Your task to perform on an android device: Turn off the flashlight Image 0: 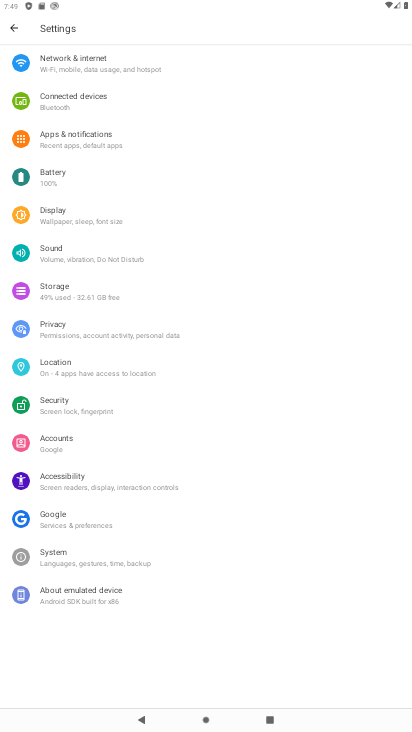
Step 0: press home button
Your task to perform on an android device: Turn off the flashlight Image 1: 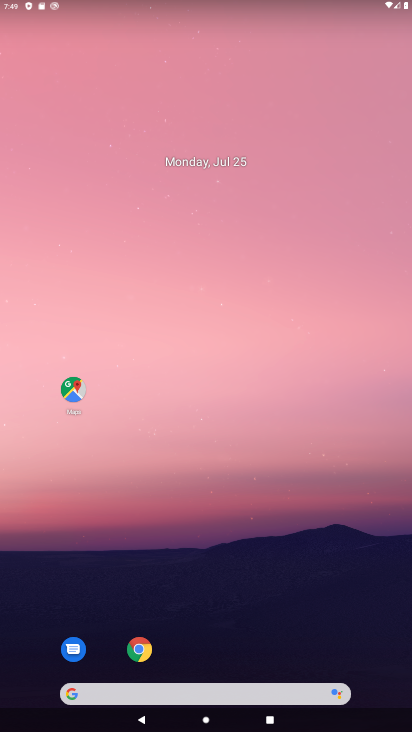
Step 1: drag from (225, 12) to (246, 491)
Your task to perform on an android device: Turn off the flashlight Image 2: 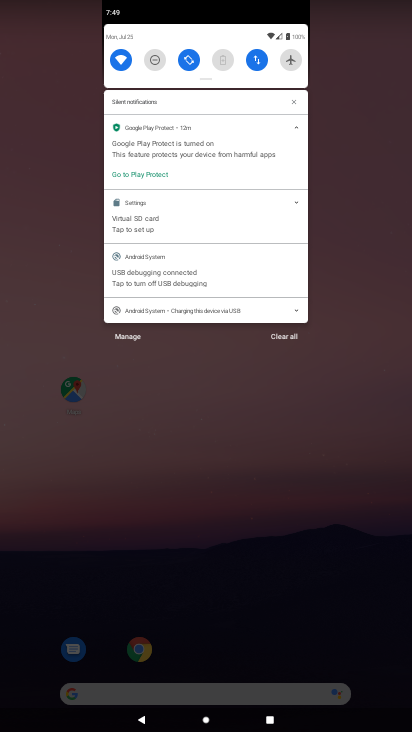
Step 2: drag from (203, 83) to (213, 427)
Your task to perform on an android device: Turn off the flashlight Image 3: 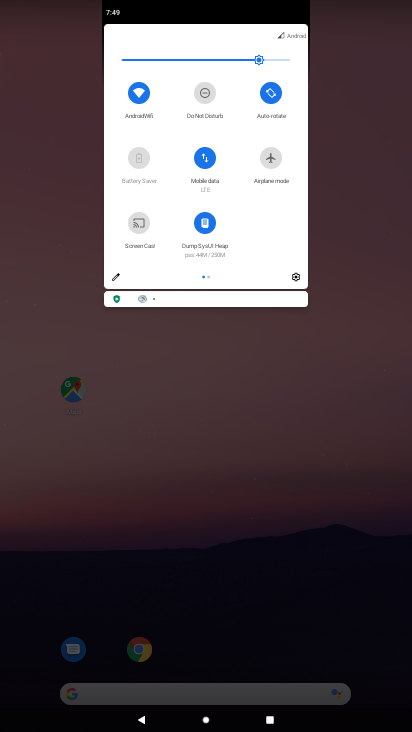
Step 3: click (114, 274)
Your task to perform on an android device: Turn off the flashlight Image 4: 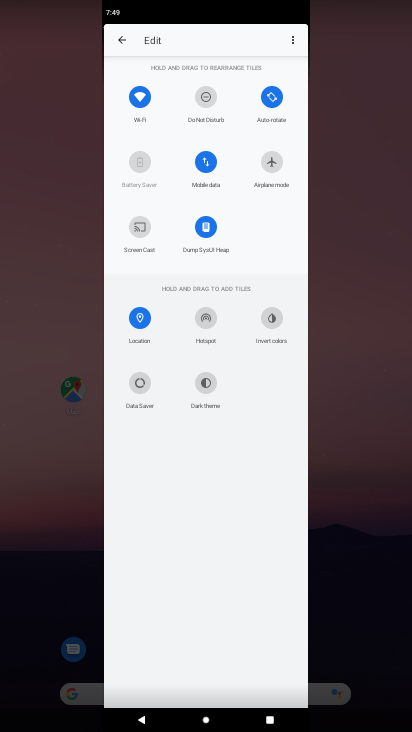
Step 4: task complete